Your task to perform on an android device: Search for Italian restaurants on Maps Image 0: 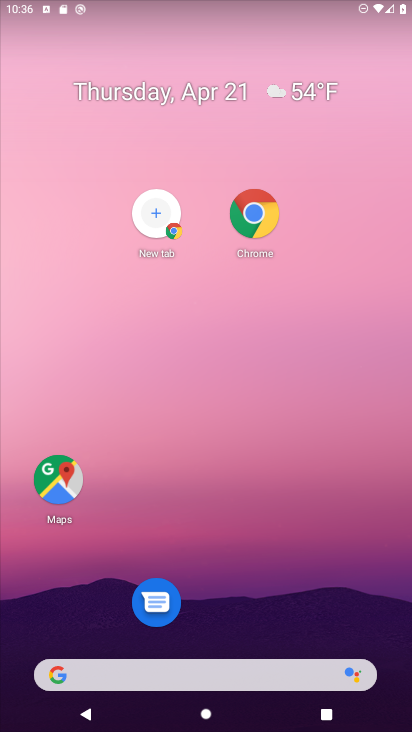
Step 0: click (48, 472)
Your task to perform on an android device: Search for Italian restaurants on Maps Image 1: 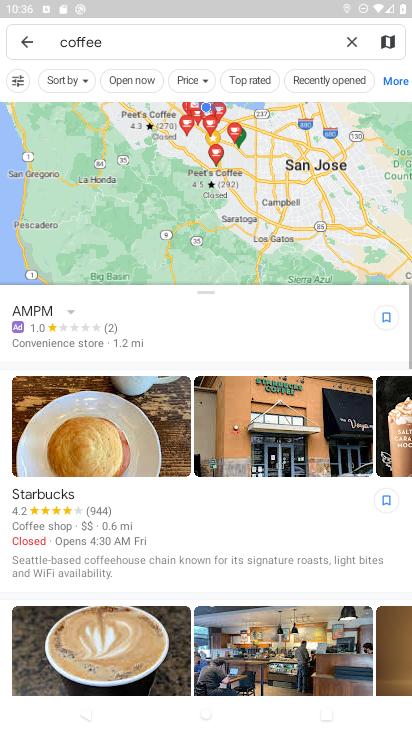
Step 1: click (348, 40)
Your task to perform on an android device: Search for Italian restaurants on Maps Image 2: 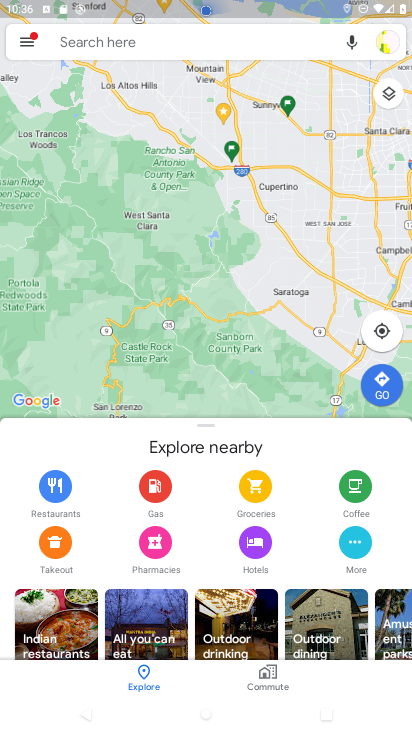
Step 2: type "italian restaurant"
Your task to perform on an android device: Search for Italian restaurants on Maps Image 3: 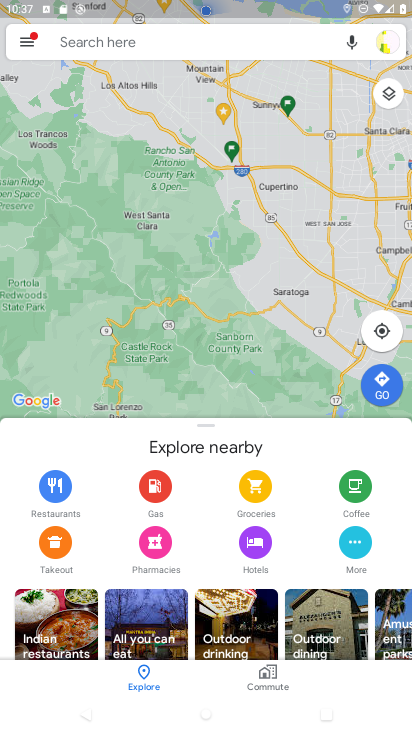
Step 3: click (255, 35)
Your task to perform on an android device: Search for Italian restaurants on Maps Image 4: 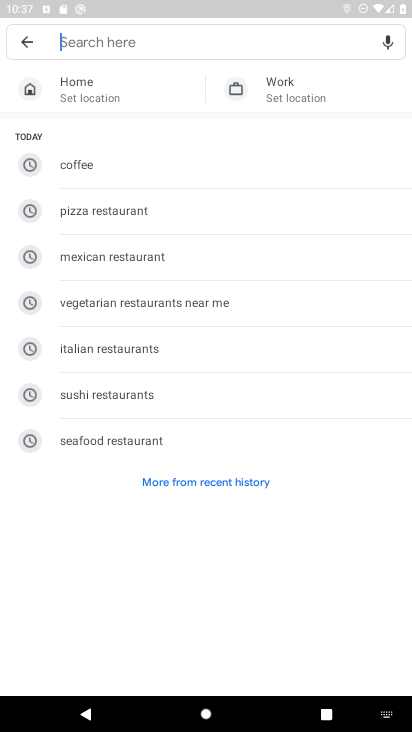
Step 4: click (83, 361)
Your task to perform on an android device: Search for Italian restaurants on Maps Image 5: 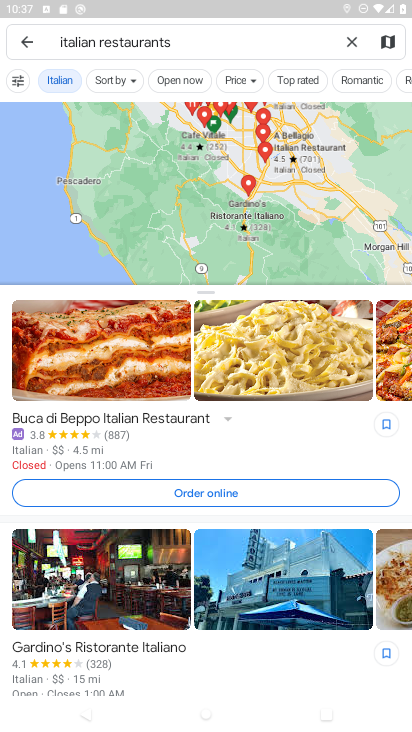
Step 5: task complete